Your task to perform on an android device: open chrome and create a bookmark for the current page Image 0: 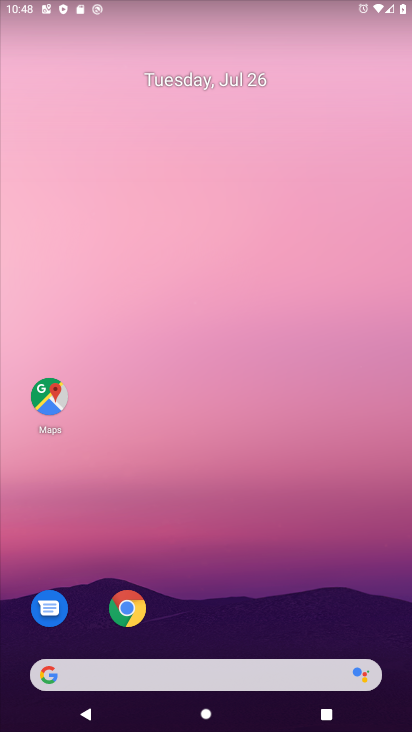
Step 0: click (129, 615)
Your task to perform on an android device: open chrome and create a bookmark for the current page Image 1: 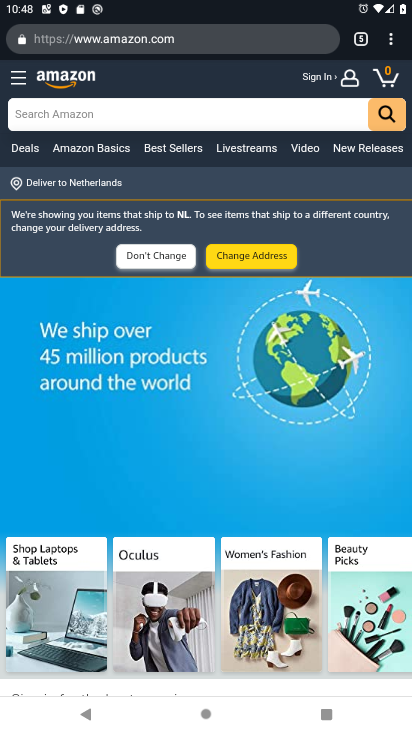
Step 1: click (392, 44)
Your task to perform on an android device: open chrome and create a bookmark for the current page Image 2: 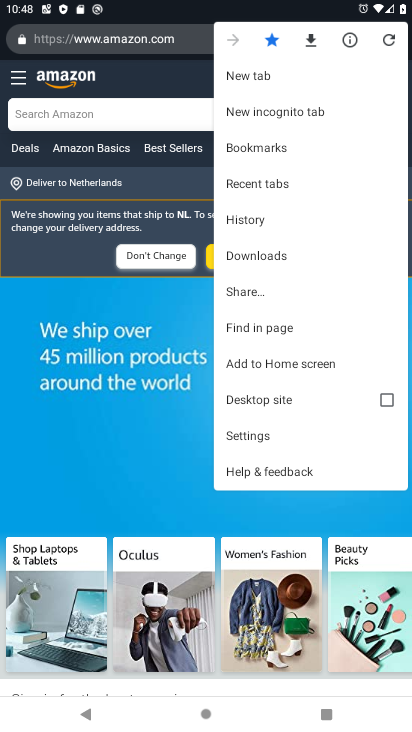
Step 2: task complete